Your task to perform on an android device: change alarm snooze length Image 0: 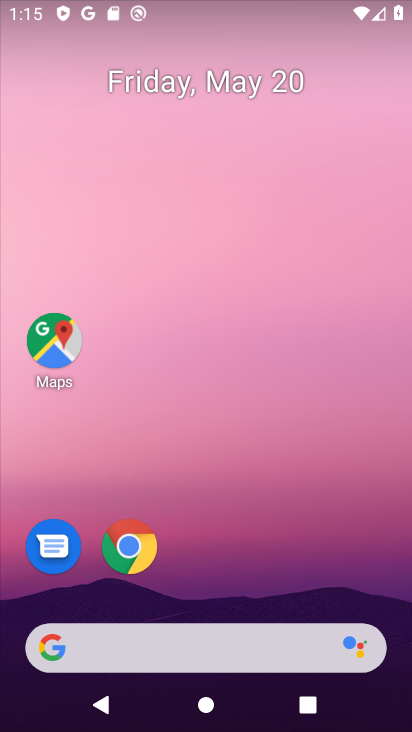
Step 0: drag from (314, 594) to (360, 26)
Your task to perform on an android device: change alarm snooze length Image 1: 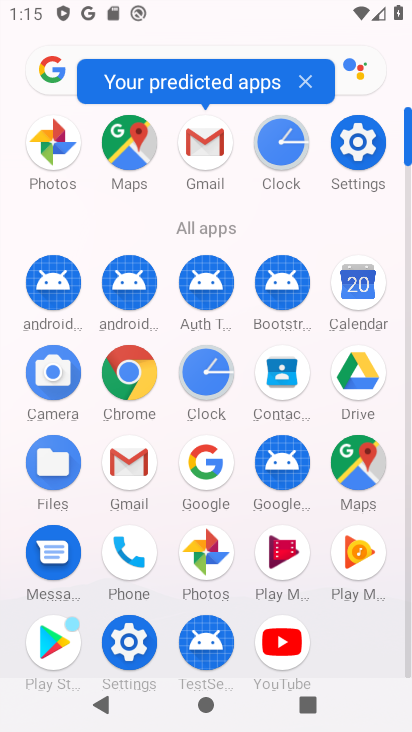
Step 1: click (199, 373)
Your task to perform on an android device: change alarm snooze length Image 2: 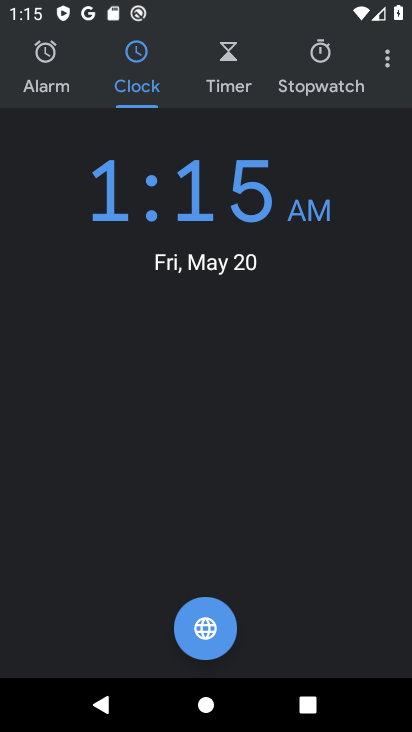
Step 2: click (384, 59)
Your task to perform on an android device: change alarm snooze length Image 3: 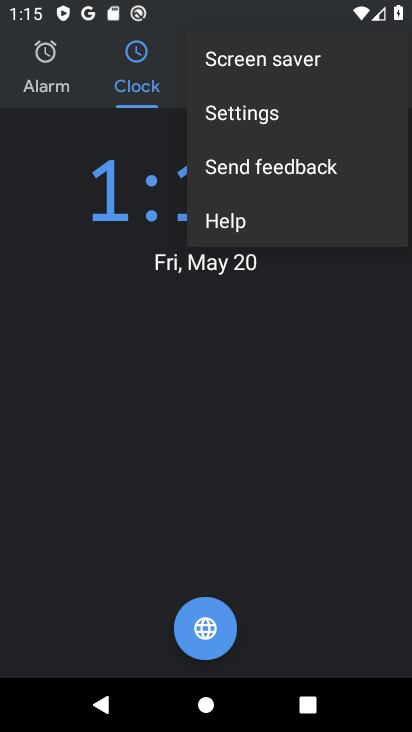
Step 3: click (301, 115)
Your task to perform on an android device: change alarm snooze length Image 4: 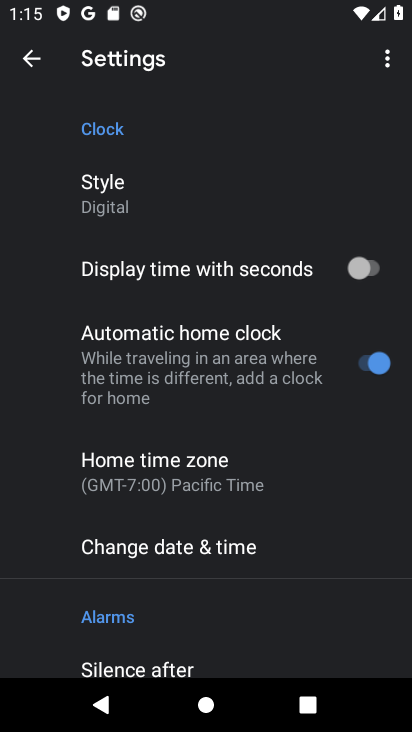
Step 4: drag from (254, 611) to (264, 58)
Your task to perform on an android device: change alarm snooze length Image 5: 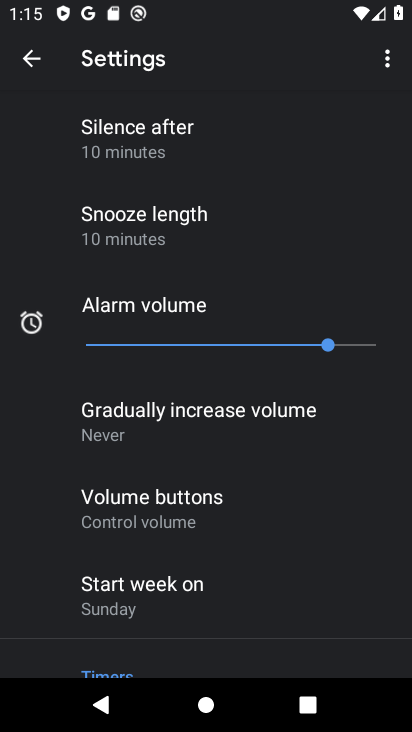
Step 5: click (177, 243)
Your task to perform on an android device: change alarm snooze length Image 6: 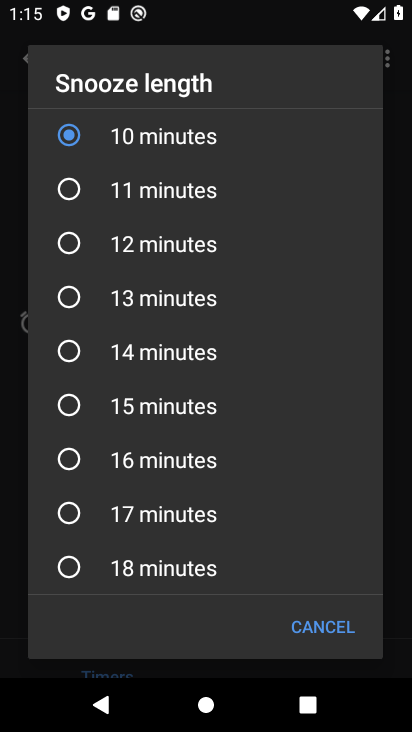
Step 6: click (77, 186)
Your task to perform on an android device: change alarm snooze length Image 7: 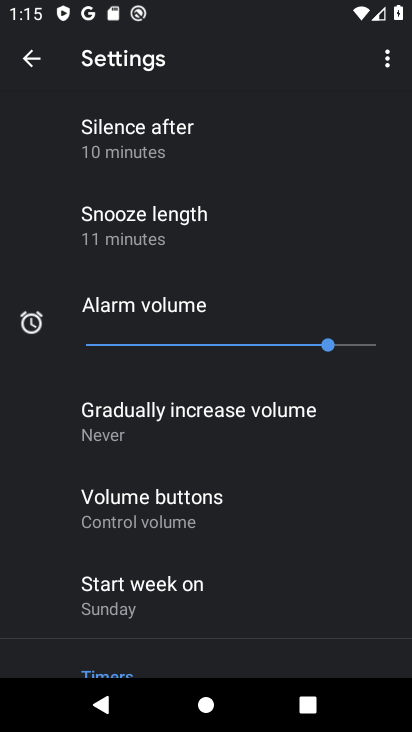
Step 7: task complete